Your task to perform on an android device: toggle priority inbox in the gmail app Image 0: 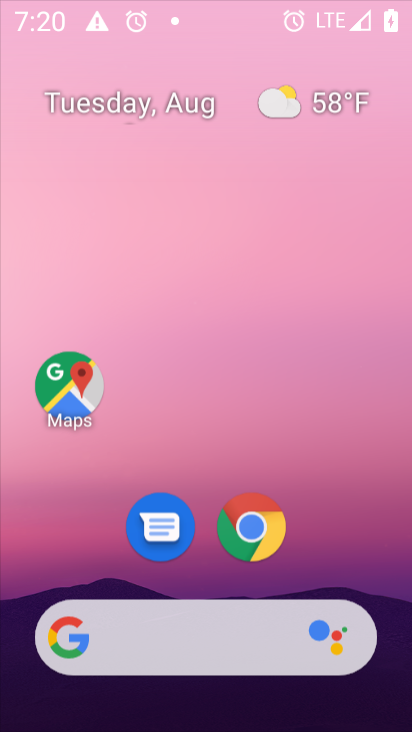
Step 0: press home button
Your task to perform on an android device: toggle priority inbox in the gmail app Image 1: 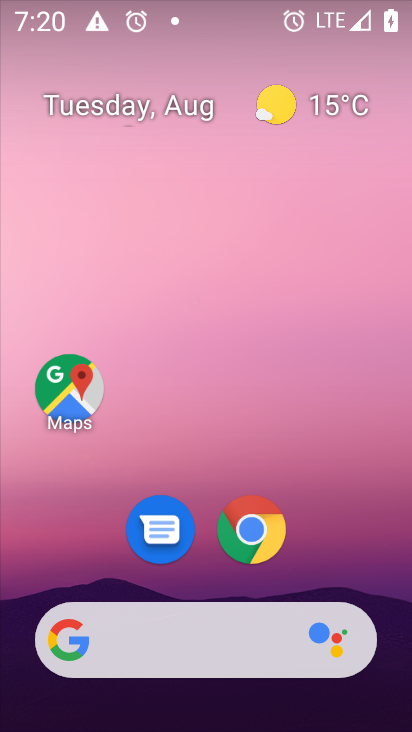
Step 1: drag from (218, 568) to (224, 104)
Your task to perform on an android device: toggle priority inbox in the gmail app Image 2: 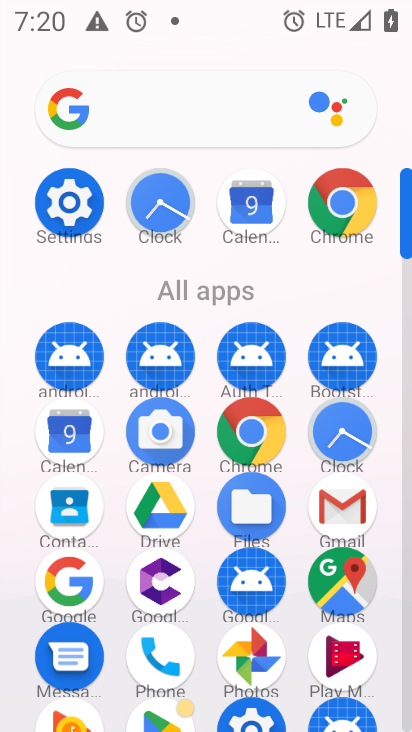
Step 2: click (343, 506)
Your task to perform on an android device: toggle priority inbox in the gmail app Image 3: 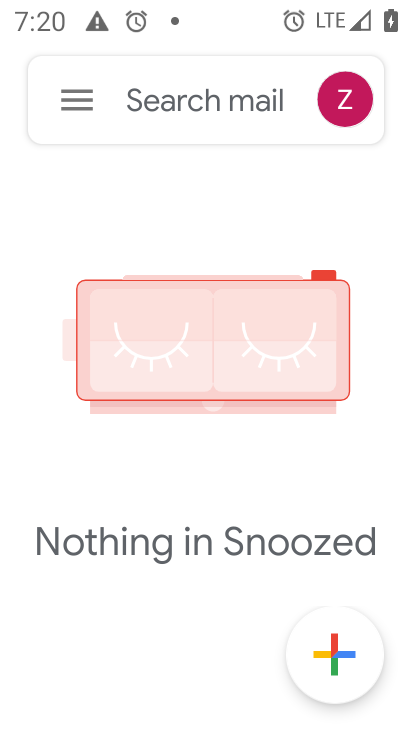
Step 3: click (68, 101)
Your task to perform on an android device: toggle priority inbox in the gmail app Image 4: 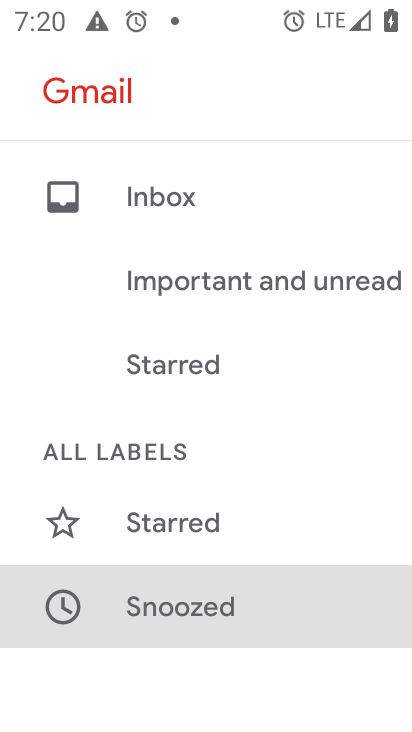
Step 4: drag from (306, 511) to (309, 56)
Your task to perform on an android device: toggle priority inbox in the gmail app Image 5: 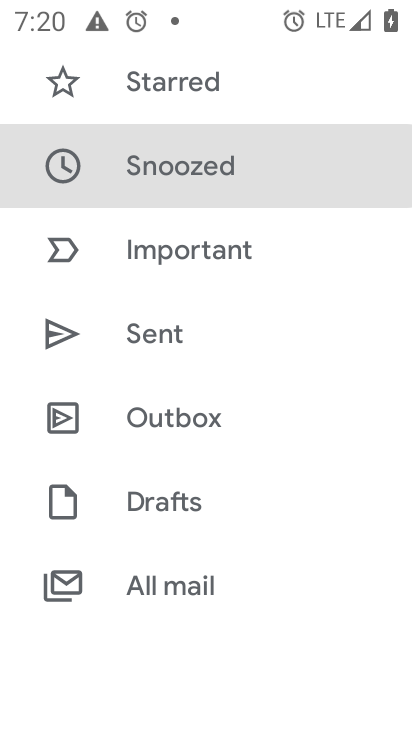
Step 5: drag from (305, 487) to (320, 58)
Your task to perform on an android device: toggle priority inbox in the gmail app Image 6: 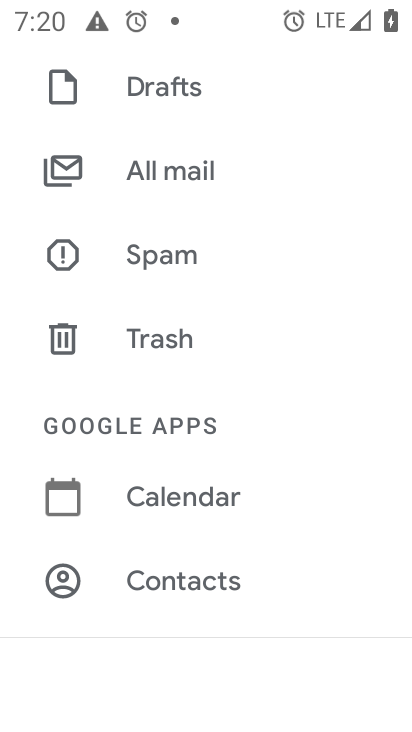
Step 6: drag from (288, 509) to (310, 64)
Your task to perform on an android device: toggle priority inbox in the gmail app Image 7: 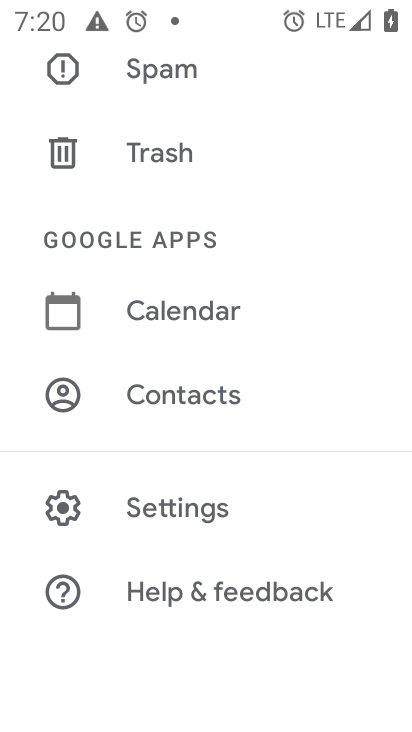
Step 7: click (160, 512)
Your task to perform on an android device: toggle priority inbox in the gmail app Image 8: 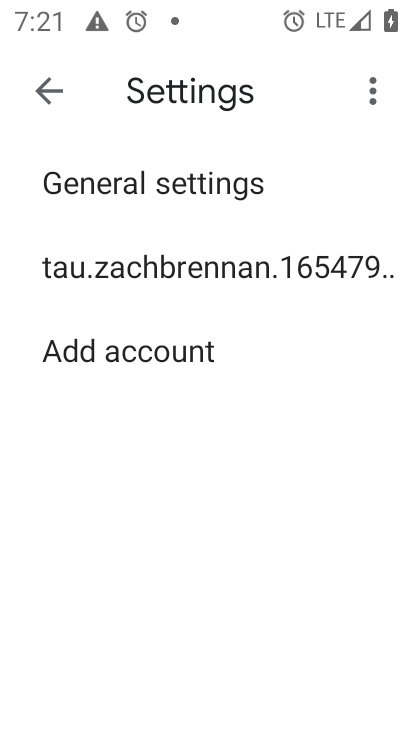
Step 8: click (176, 270)
Your task to perform on an android device: toggle priority inbox in the gmail app Image 9: 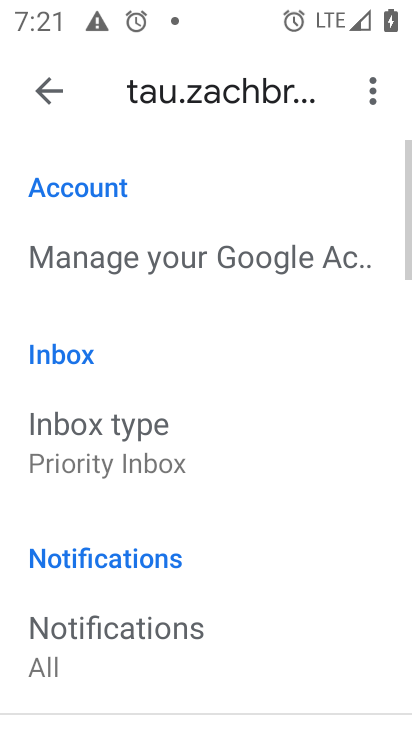
Step 9: click (81, 447)
Your task to perform on an android device: toggle priority inbox in the gmail app Image 10: 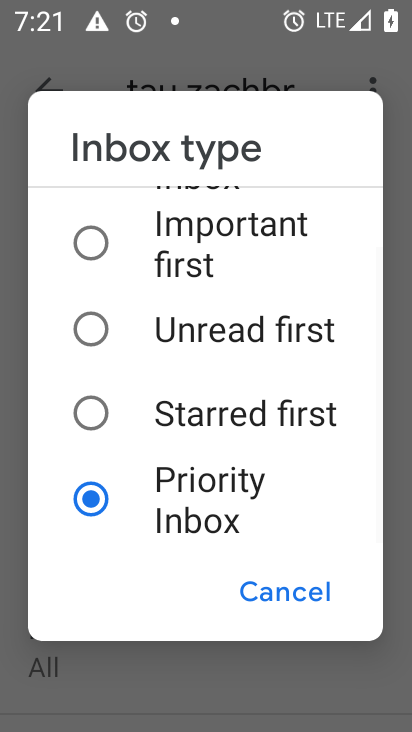
Step 10: click (94, 249)
Your task to perform on an android device: toggle priority inbox in the gmail app Image 11: 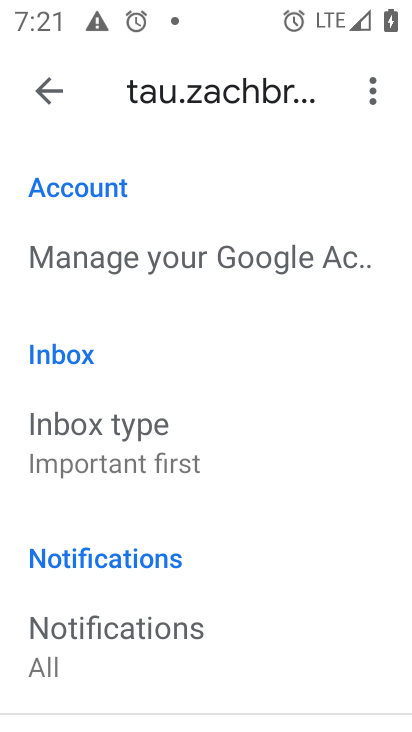
Step 11: task complete